Your task to perform on an android device: open a bookmark in the chrome app Image 0: 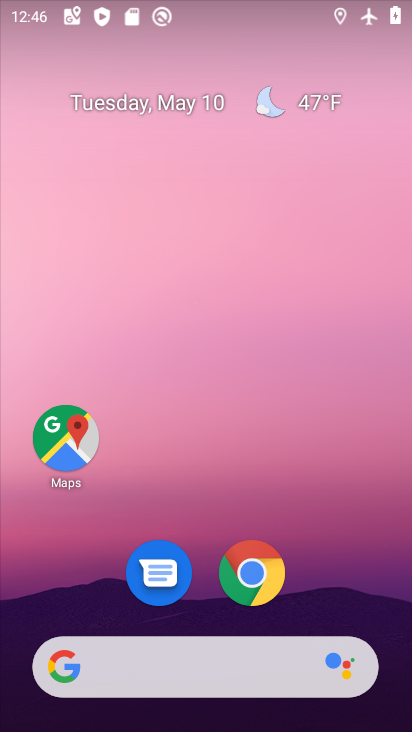
Step 0: drag from (207, 603) to (245, 199)
Your task to perform on an android device: open a bookmark in the chrome app Image 1: 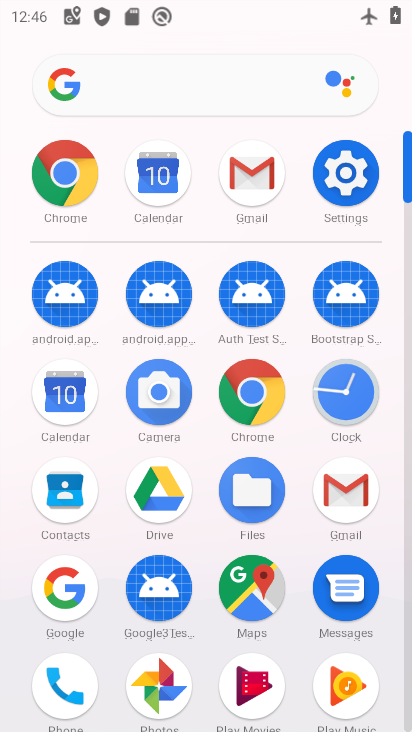
Step 1: click (252, 394)
Your task to perform on an android device: open a bookmark in the chrome app Image 2: 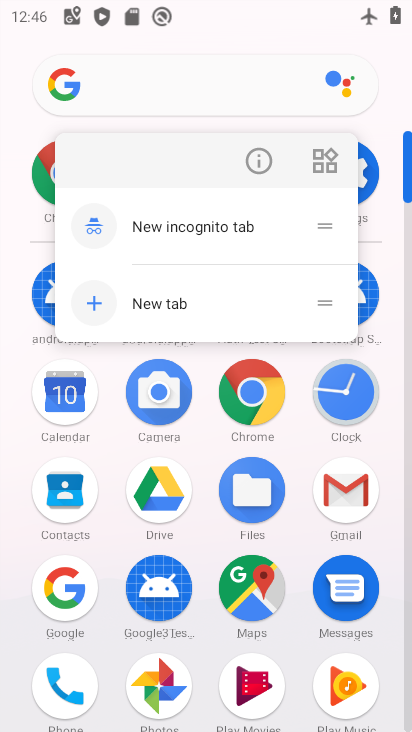
Step 2: click (268, 153)
Your task to perform on an android device: open a bookmark in the chrome app Image 3: 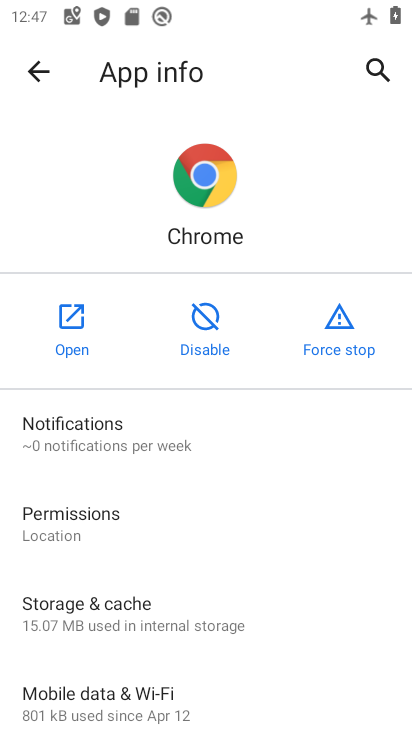
Step 3: click (90, 313)
Your task to perform on an android device: open a bookmark in the chrome app Image 4: 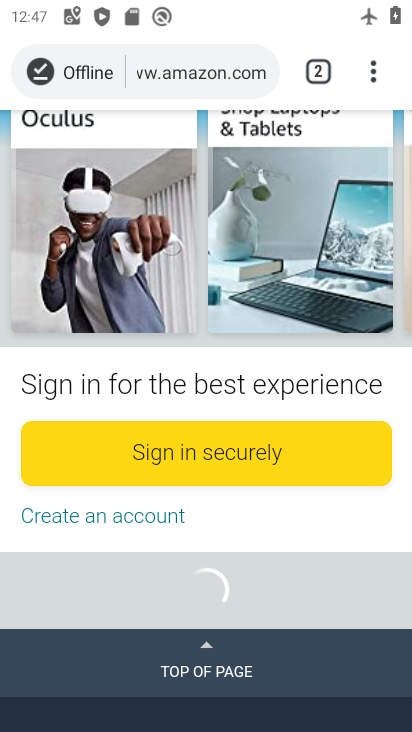
Step 4: task complete